Your task to perform on an android device: Go to Maps Image 0: 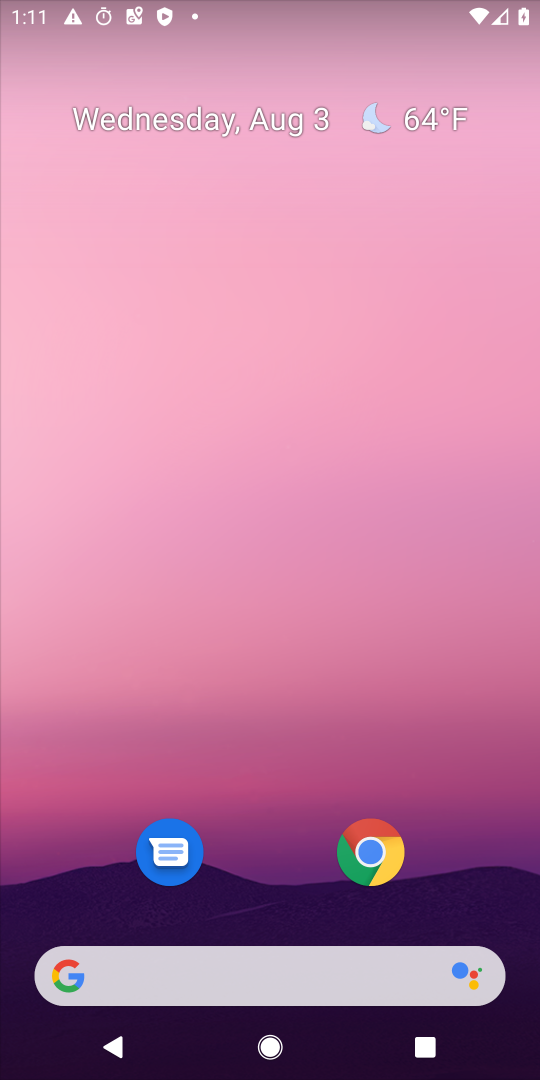
Step 0: drag from (448, 784) to (295, 86)
Your task to perform on an android device: Go to Maps Image 1: 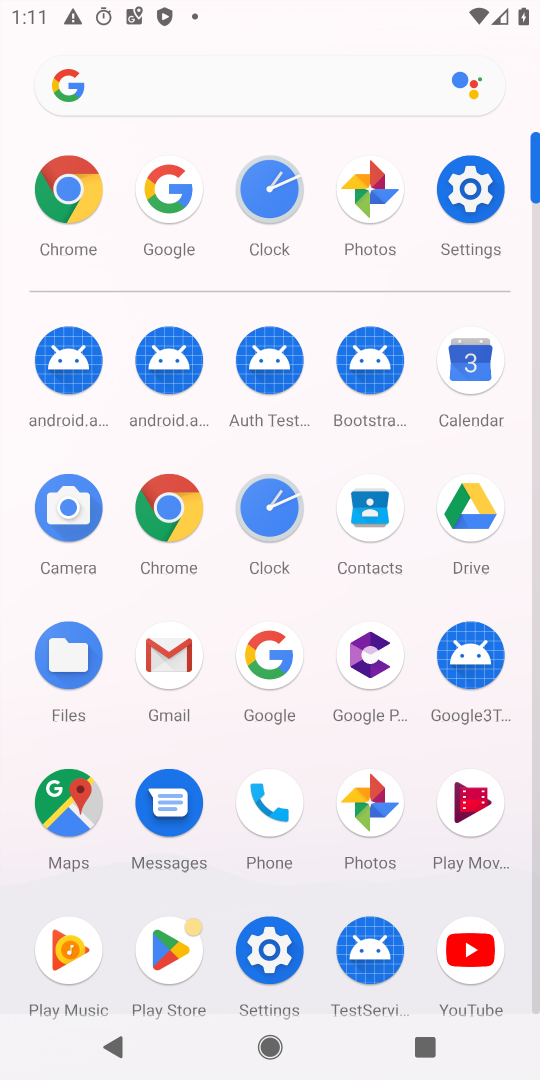
Step 1: click (75, 816)
Your task to perform on an android device: Go to Maps Image 2: 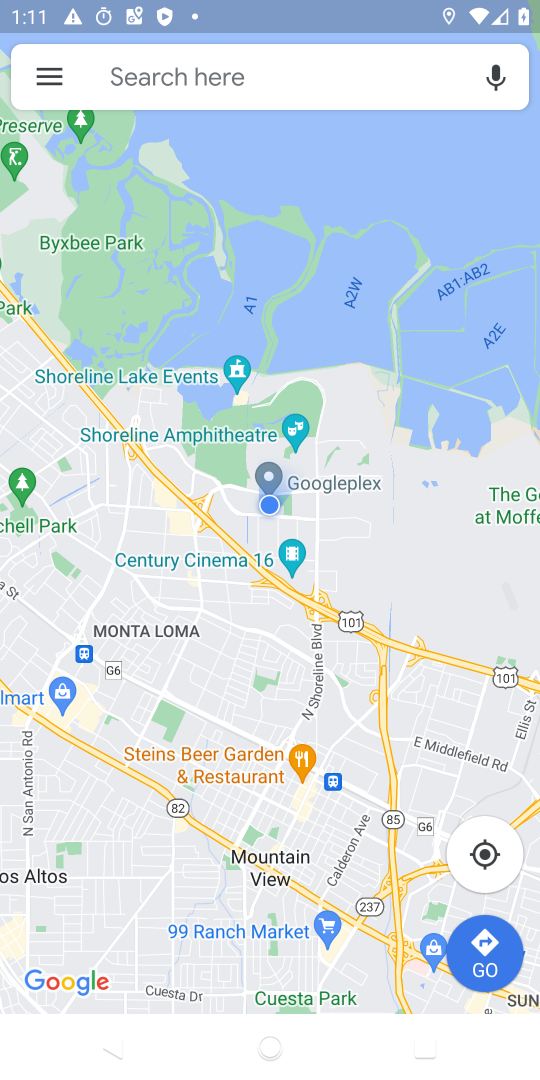
Step 2: task complete